Your task to perform on an android device: turn on improve location accuracy Image 0: 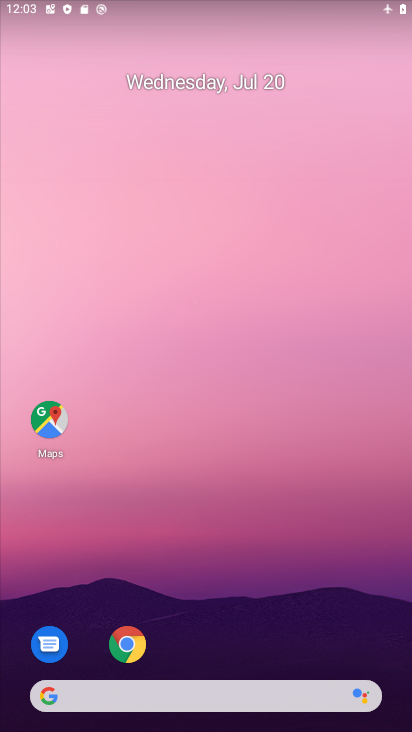
Step 0: press home button
Your task to perform on an android device: turn on improve location accuracy Image 1: 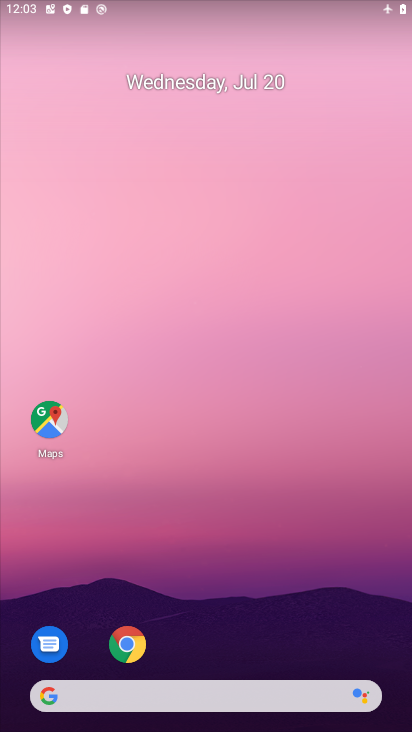
Step 1: drag from (237, 639) to (217, 110)
Your task to perform on an android device: turn on improve location accuracy Image 2: 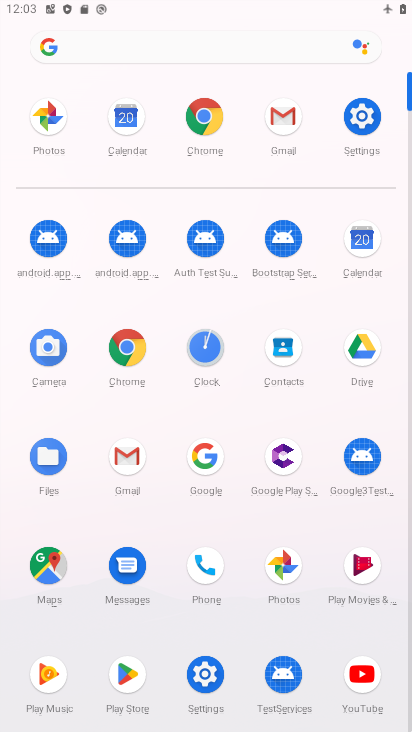
Step 2: click (199, 678)
Your task to perform on an android device: turn on improve location accuracy Image 3: 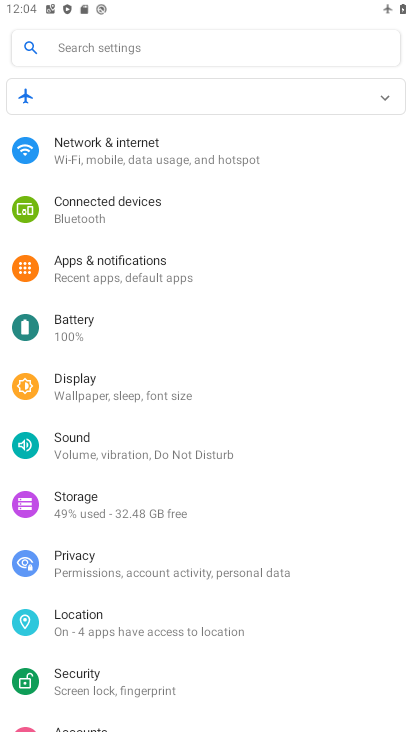
Step 3: click (183, 629)
Your task to perform on an android device: turn on improve location accuracy Image 4: 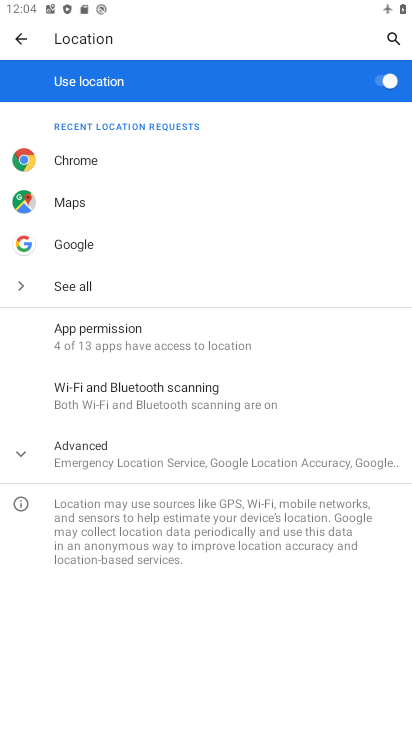
Step 4: click (113, 449)
Your task to perform on an android device: turn on improve location accuracy Image 5: 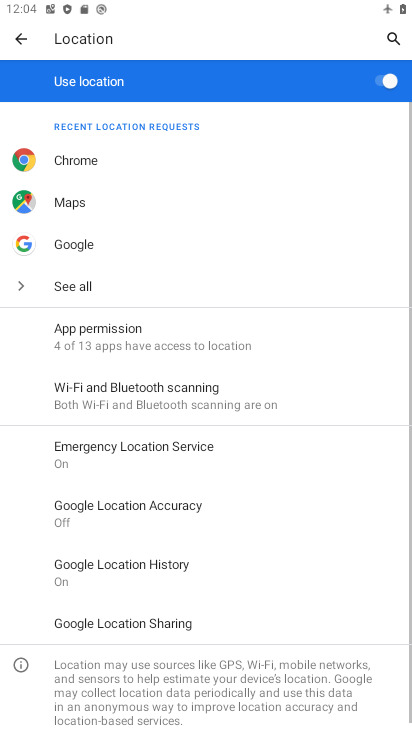
Step 5: click (144, 508)
Your task to perform on an android device: turn on improve location accuracy Image 6: 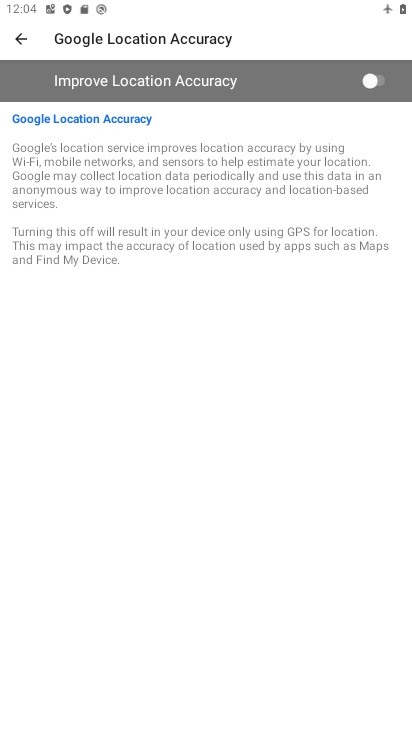
Step 6: click (351, 72)
Your task to perform on an android device: turn on improve location accuracy Image 7: 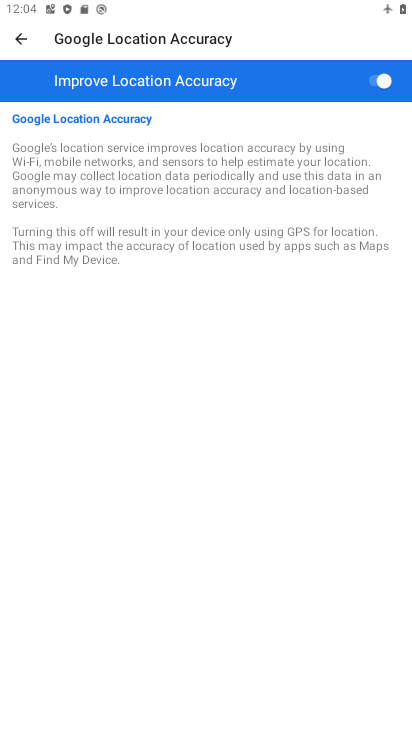
Step 7: task complete